Your task to perform on an android device: open a bookmark in the chrome app Image 0: 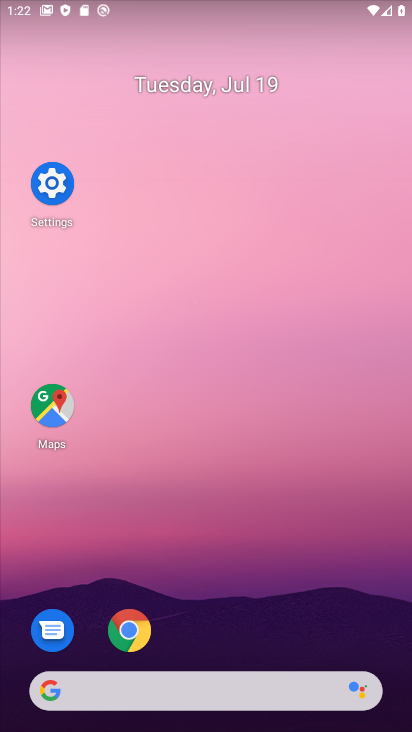
Step 0: click (129, 623)
Your task to perform on an android device: open a bookmark in the chrome app Image 1: 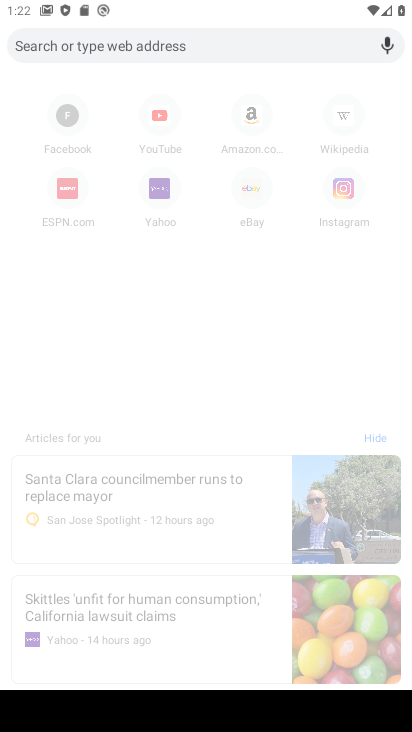
Step 1: press back button
Your task to perform on an android device: open a bookmark in the chrome app Image 2: 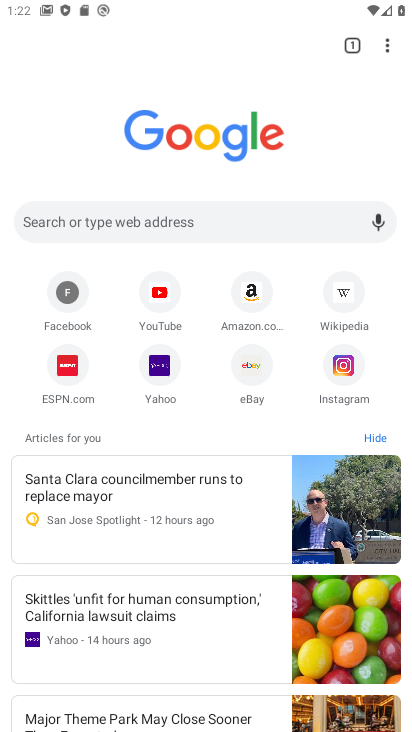
Step 2: click (387, 33)
Your task to perform on an android device: open a bookmark in the chrome app Image 3: 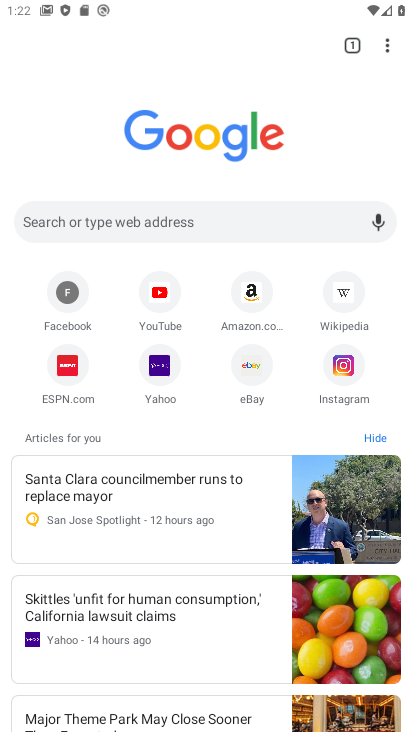
Step 3: click (390, 50)
Your task to perform on an android device: open a bookmark in the chrome app Image 4: 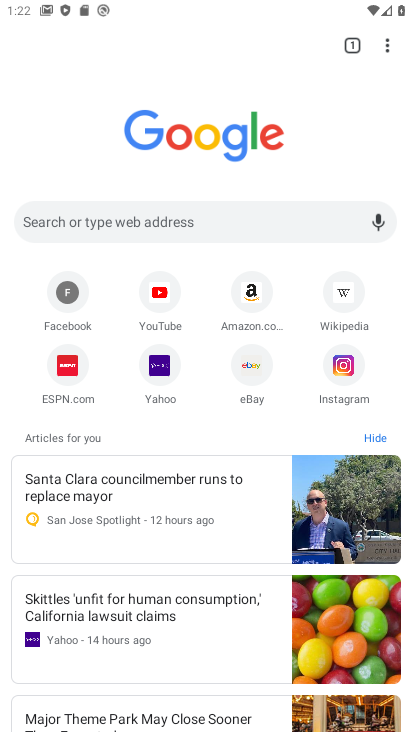
Step 4: click (392, 43)
Your task to perform on an android device: open a bookmark in the chrome app Image 5: 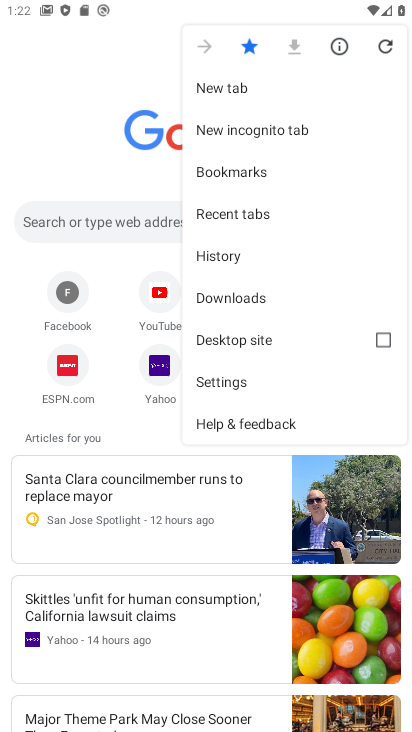
Step 5: click (249, 171)
Your task to perform on an android device: open a bookmark in the chrome app Image 6: 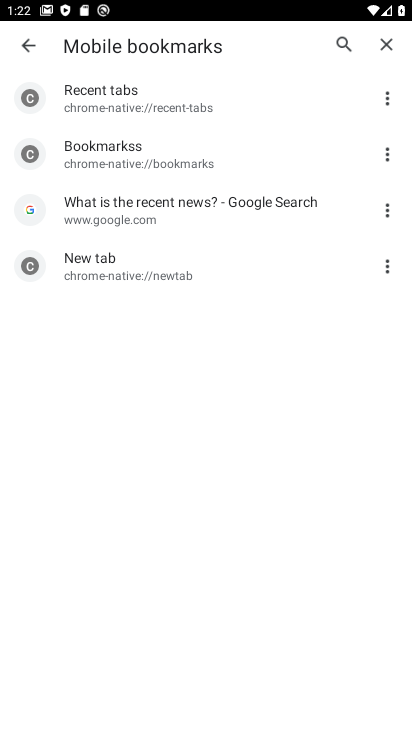
Step 6: task complete